Your task to perform on an android device: see tabs open on other devices in the chrome app Image 0: 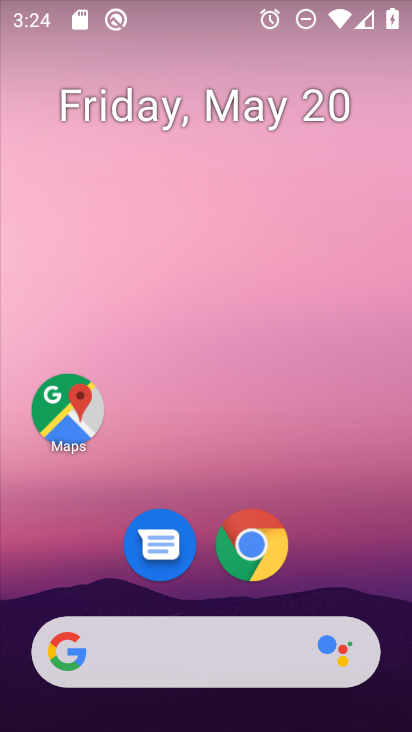
Step 0: click (269, 546)
Your task to perform on an android device: see tabs open on other devices in the chrome app Image 1: 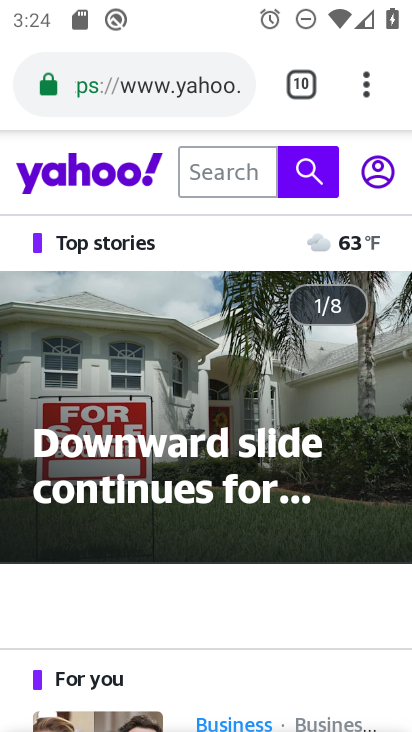
Step 1: click (368, 75)
Your task to perform on an android device: see tabs open on other devices in the chrome app Image 2: 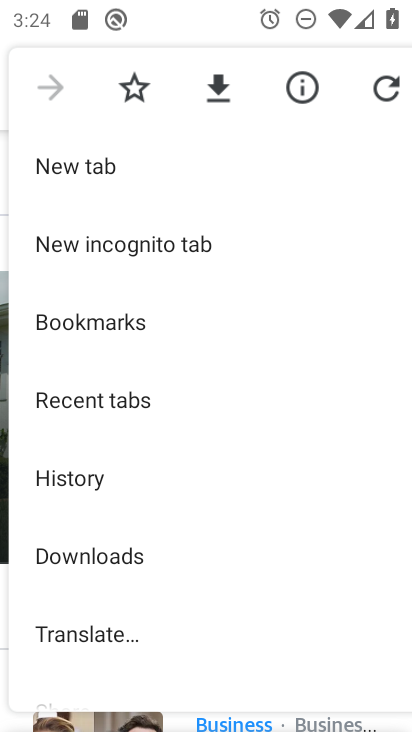
Step 2: click (91, 396)
Your task to perform on an android device: see tabs open on other devices in the chrome app Image 3: 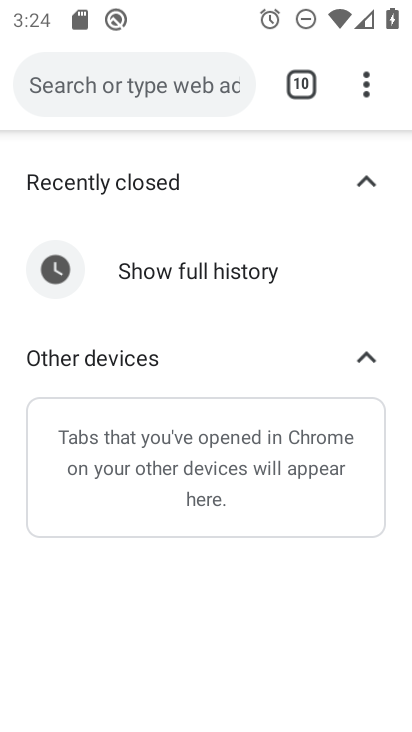
Step 3: task complete